Your task to perform on an android device: turn on wifi Image 0: 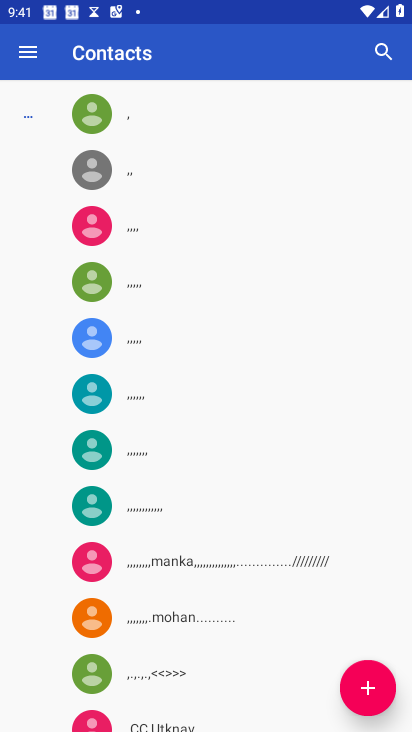
Step 0: press home button
Your task to perform on an android device: turn on wifi Image 1: 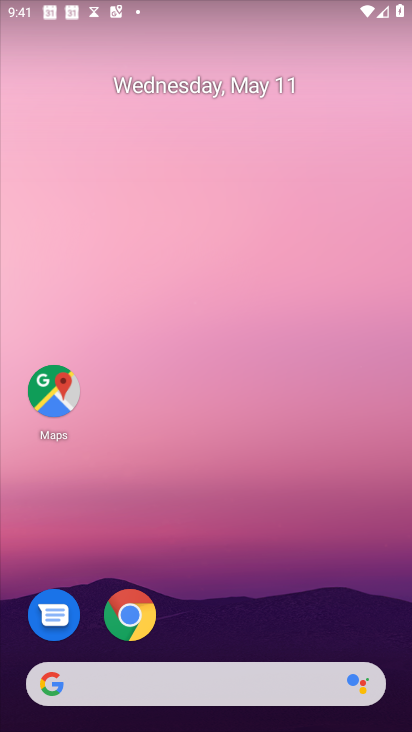
Step 1: drag from (227, 2) to (158, 471)
Your task to perform on an android device: turn on wifi Image 2: 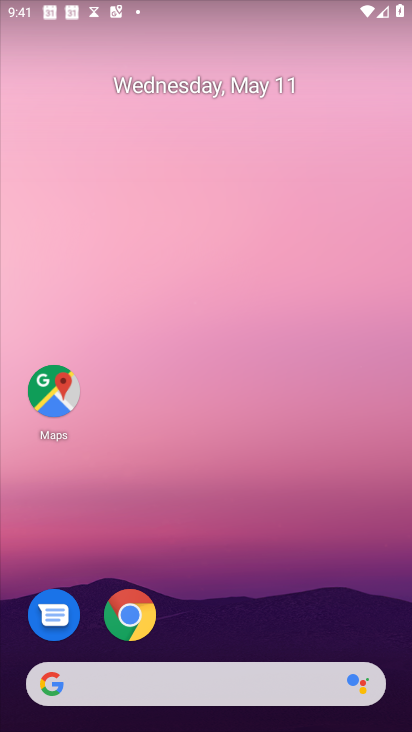
Step 2: drag from (231, 6) to (148, 587)
Your task to perform on an android device: turn on wifi Image 3: 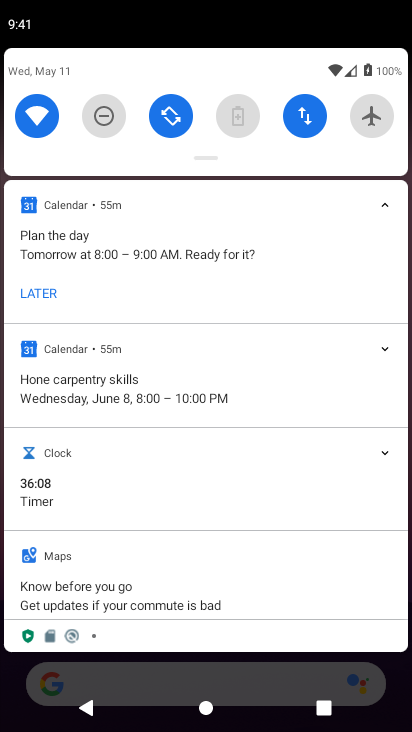
Step 3: click (38, 130)
Your task to perform on an android device: turn on wifi Image 4: 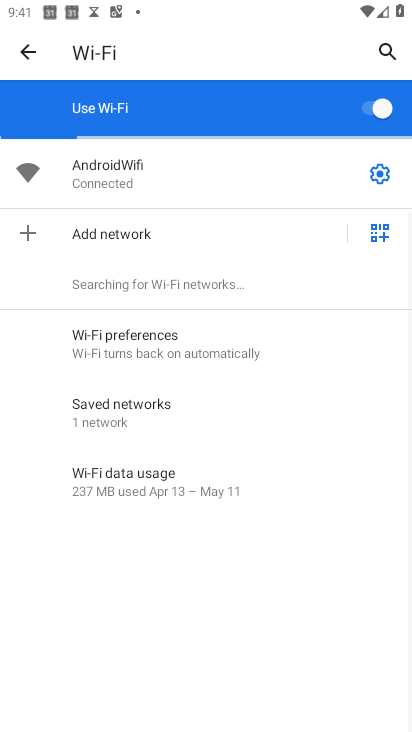
Step 4: task complete